Your task to perform on an android device: Play the last video I watched on Youtube Image 0: 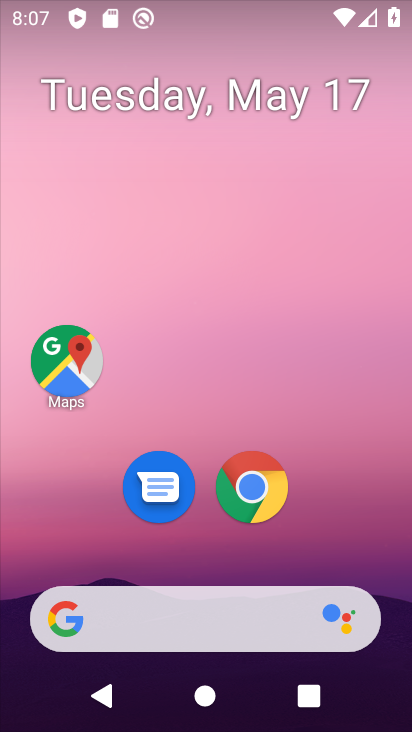
Step 0: drag from (259, 653) to (283, 295)
Your task to perform on an android device: Play the last video I watched on Youtube Image 1: 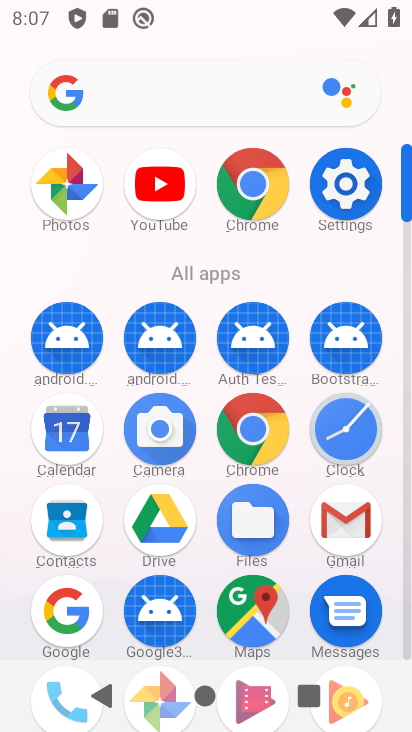
Step 1: click (149, 185)
Your task to perform on an android device: Play the last video I watched on Youtube Image 2: 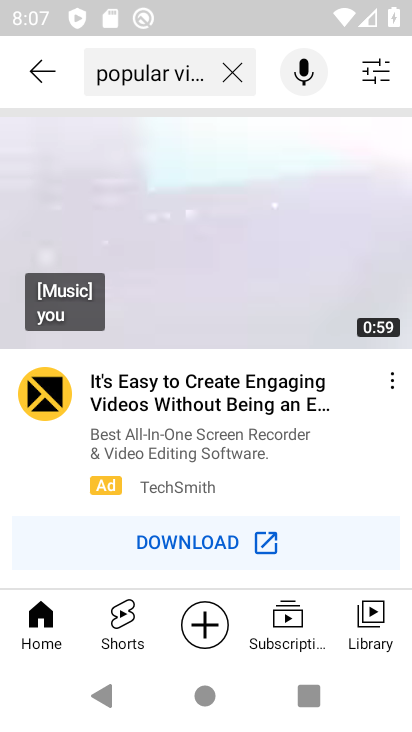
Step 2: click (362, 621)
Your task to perform on an android device: Play the last video I watched on Youtube Image 3: 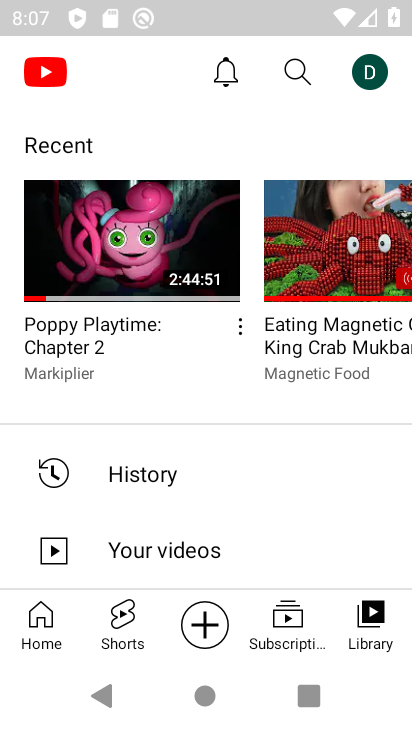
Step 3: click (158, 251)
Your task to perform on an android device: Play the last video I watched on Youtube Image 4: 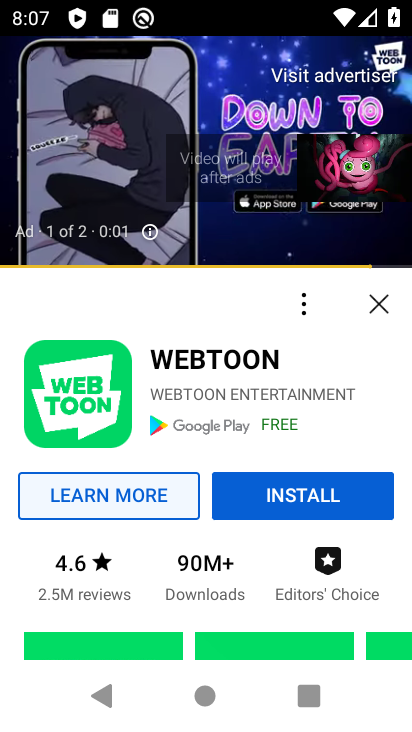
Step 4: click (368, 300)
Your task to perform on an android device: Play the last video I watched on Youtube Image 5: 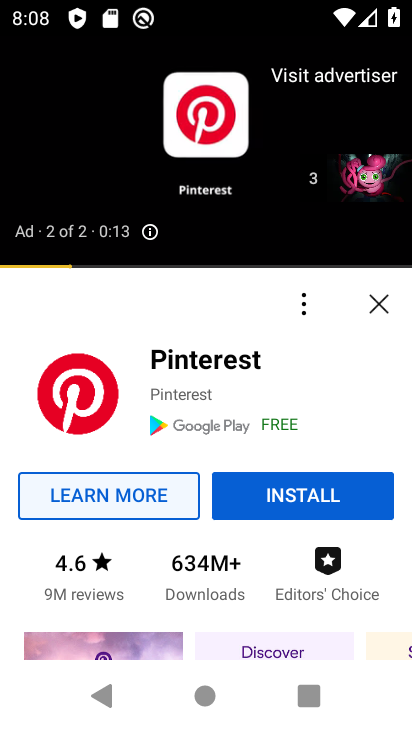
Step 5: click (376, 309)
Your task to perform on an android device: Play the last video I watched on Youtube Image 6: 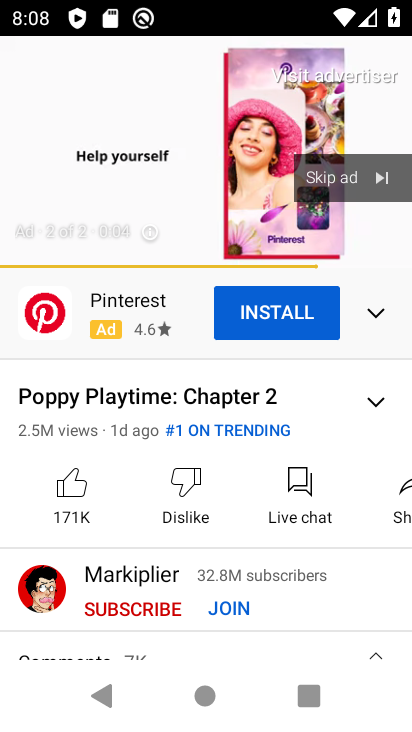
Step 6: click (348, 170)
Your task to perform on an android device: Play the last video I watched on Youtube Image 7: 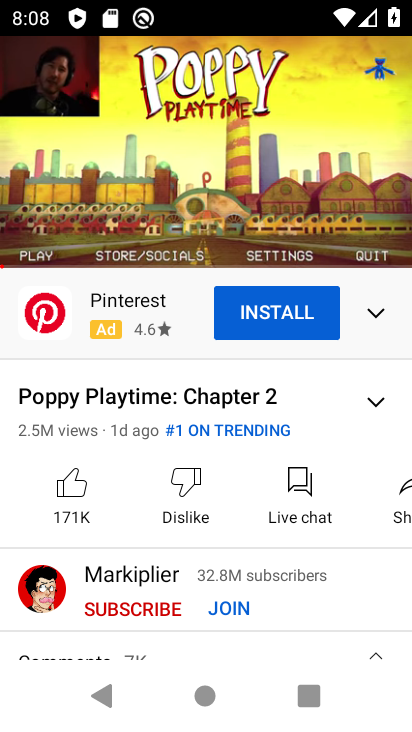
Step 7: task complete